Your task to perform on an android device: check the backup settings in the google photos Image 0: 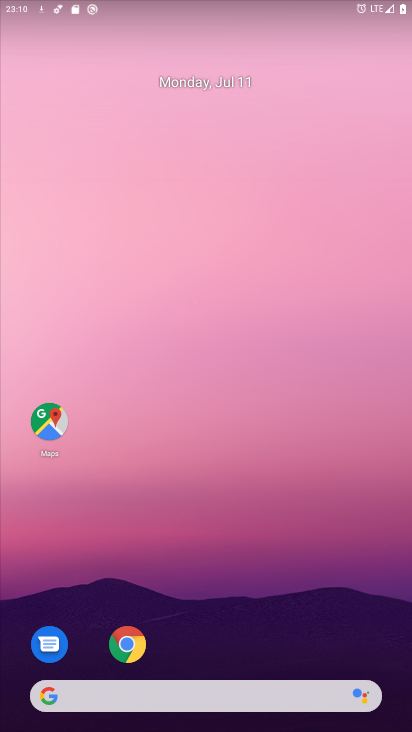
Step 0: drag from (197, 652) to (224, 377)
Your task to perform on an android device: check the backup settings in the google photos Image 1: 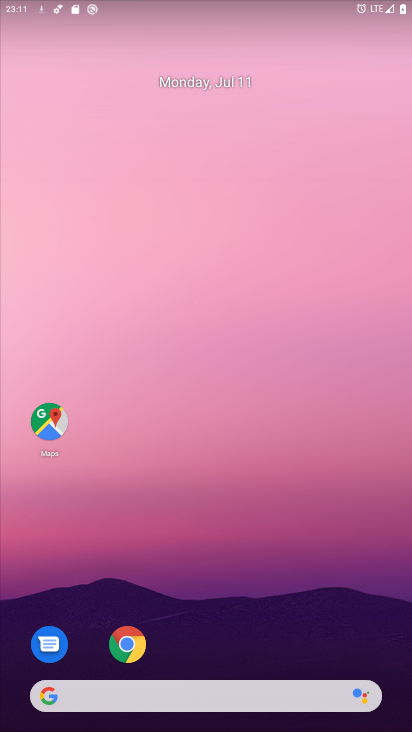
Step 1: drag from (331, 619) to (332, 157)
Your task to perform on an android device: check the backup settings in the google photos Image 2: 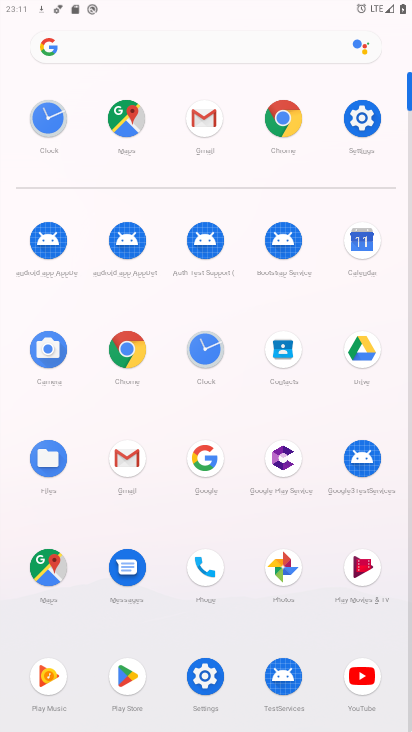
Step 2: click (271, 565)
Your task to perform on an android device: check the backup settings in the google photos Image 3: 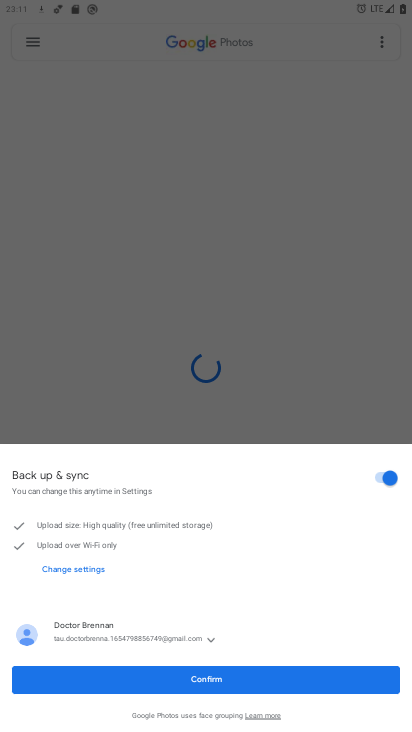
Step 3: click (390, 37)
Your task to perform on an android device: check the backup settings in the google photos Image 4: 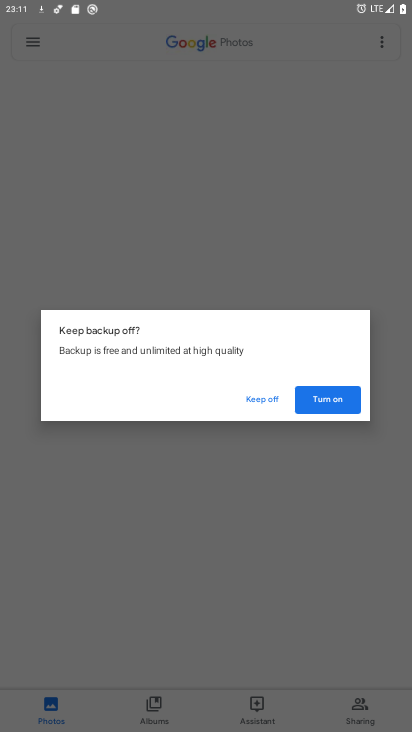
Step 4: click (302, 270)
Your task to perform on an android device: check the backup settings in the google photos Image 5: 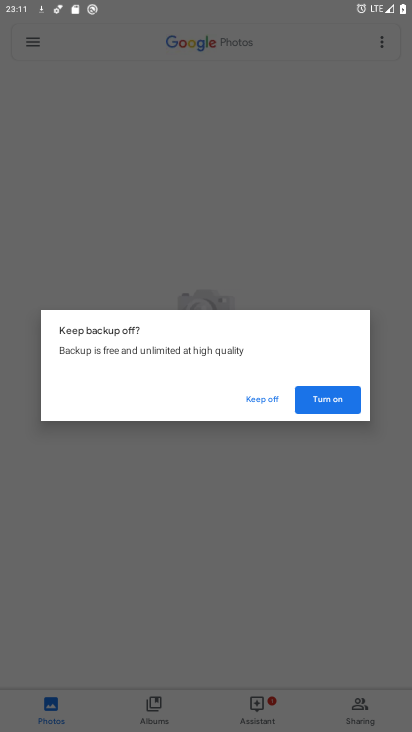
Step 5: click (313, 399)
Your task to perform on an android device: check the backup settings in the google photos Image 6: 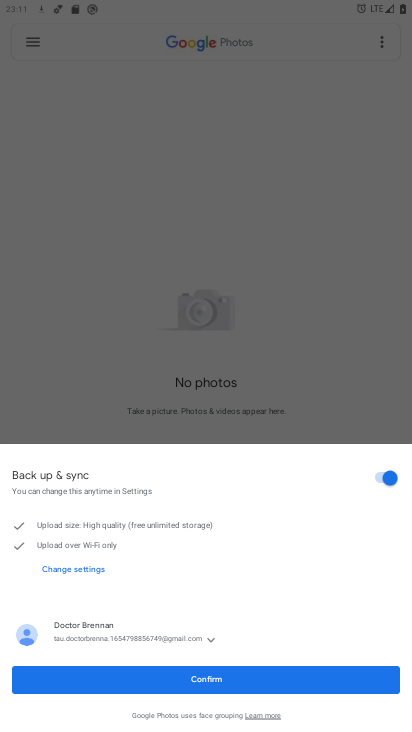
Step 6: click (27, 30)
Your task to perform on an android device: check the backup settings in the google photos Image 7: 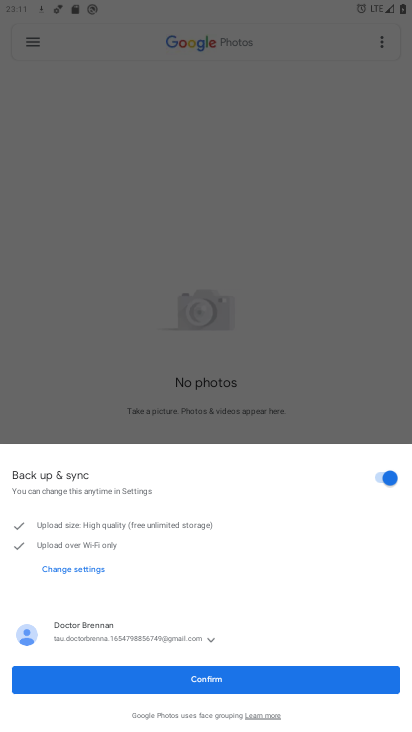
Step 7: click (28, 62)
Your task to perform on an android device: check the backup settings in the google photos Image 8: 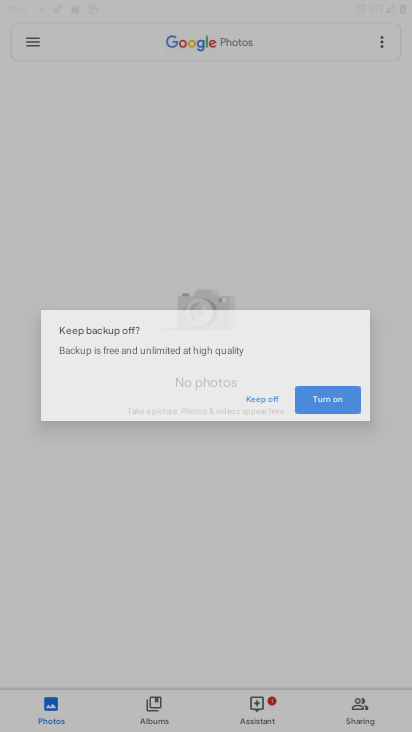
Step 8: click (28, 50)
Your task to perform on an android device: check the backup settings in the google photos Image 9: 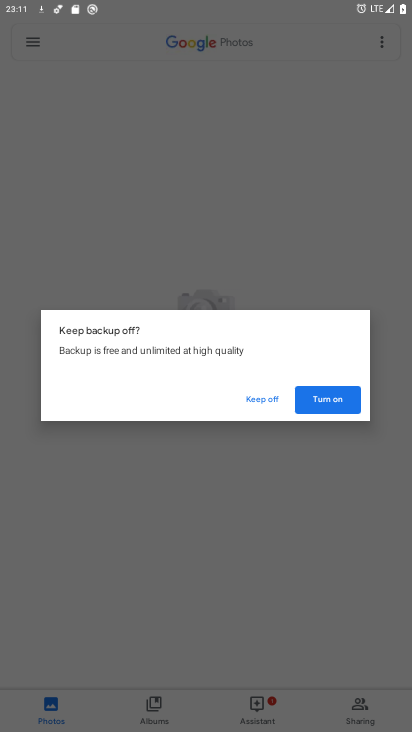
Step 9: click (28, 50)
Your task to perform on an android device: check the backup settings in the google photos Image 10: 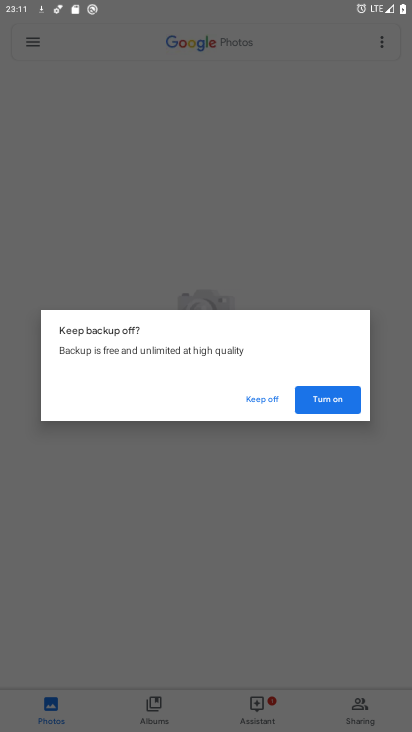
Step 10: click (269, 410)
Your task to perform on an android device: check the backup settings in the google photos Image 11: 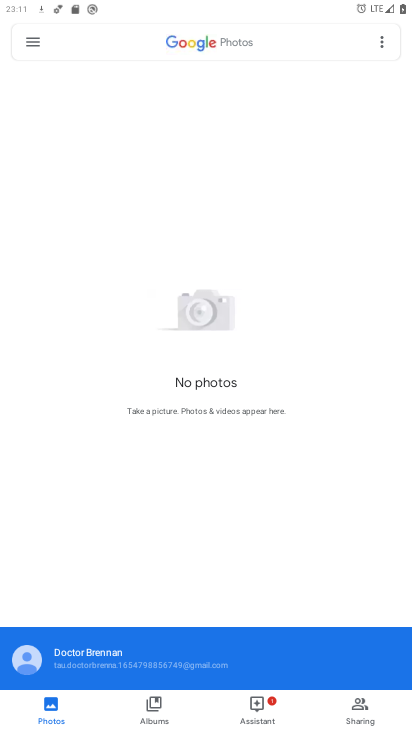
Step 11: click (34, 48)
Your task to perform on an android device: check the backup settings in the google photos Image 12: 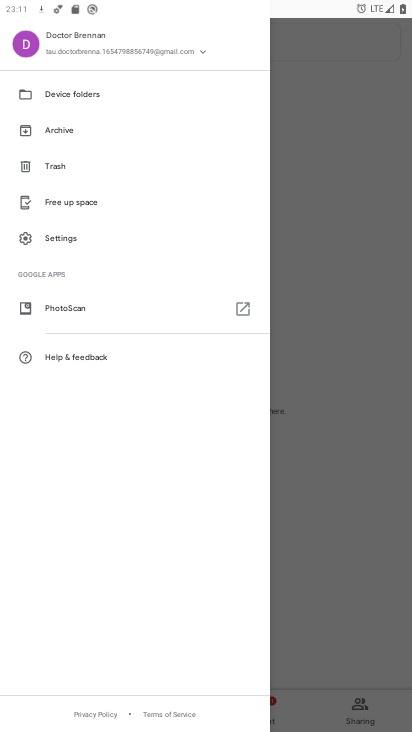
Step 12: click (84, 250)
Your task to perform on an android device: check the backup settings in the google photos Image 13: 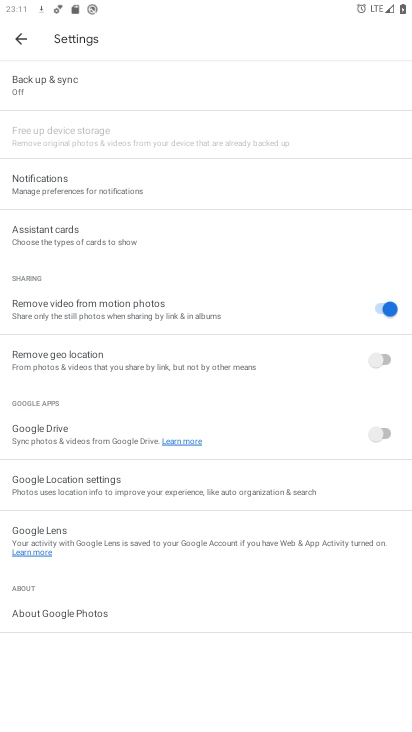
Step 13: click (49, 85)
Your task to perform on an android device: check the backup settings in the google photos Image 14: 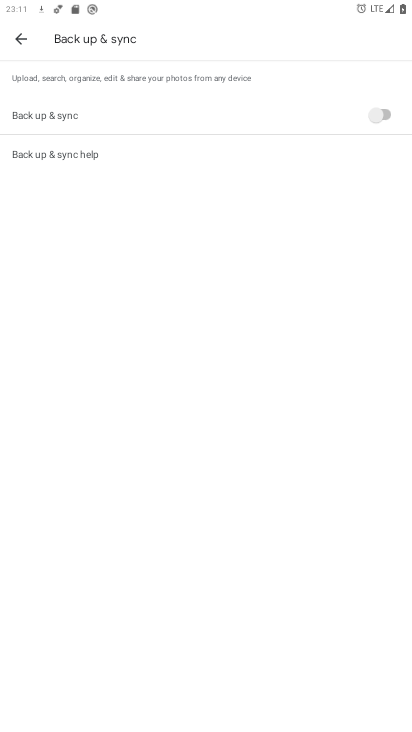
Step 14: click (66, 110)
Your task to perform on an android device: check the backup settings in the google photos Image 15: 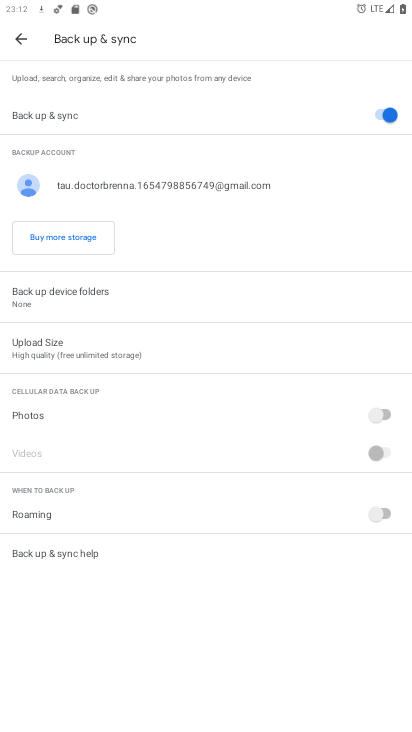
Step 15: task complete